Your task to perform on an android device: change the clock style Image 0: 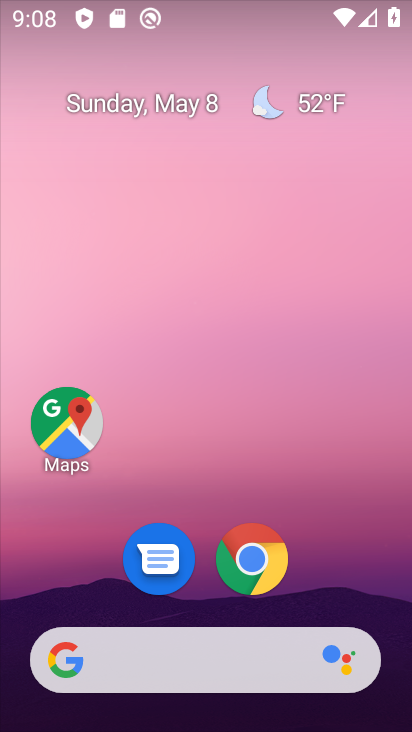
Step 0: drag from (329, 560) to (260, 48)
Your task to perform on an android device: change the clock style Image 1: 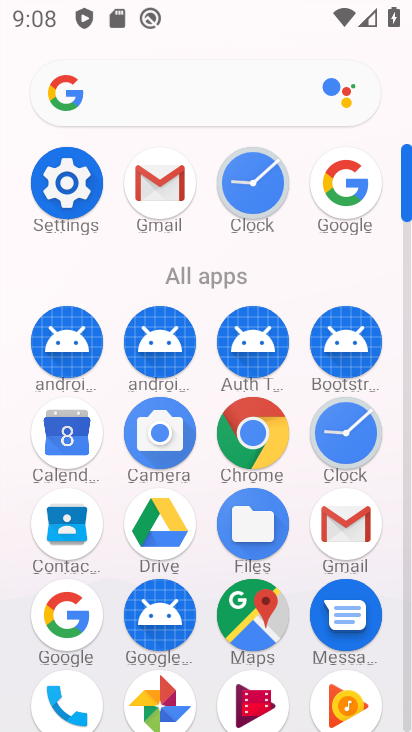
Step 1: click (358, 418)
Your task to perform on an android device: change the clock style Image 2: 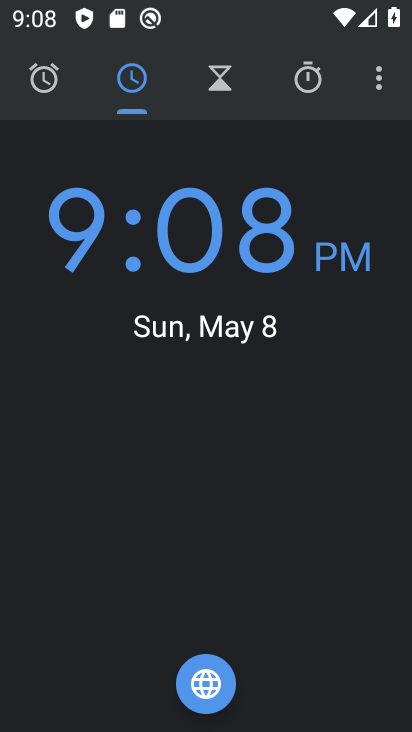
Step 2: click (379, 77)
Your task to perform on an android device: change the clock style Image 3: 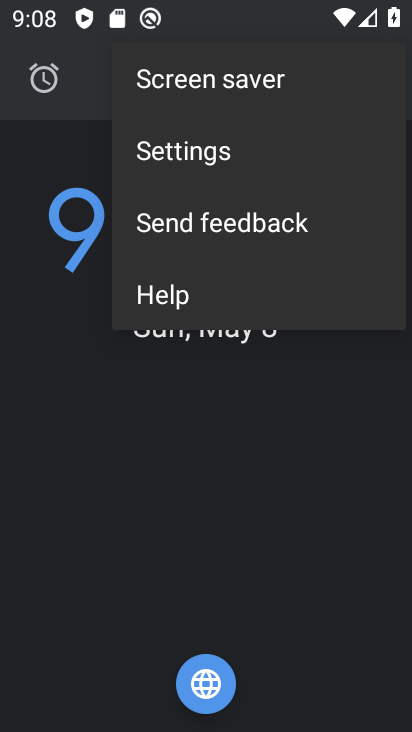
Step 3: click (180, 164)
Your task to perform on an android device: change the clock style Image 4: 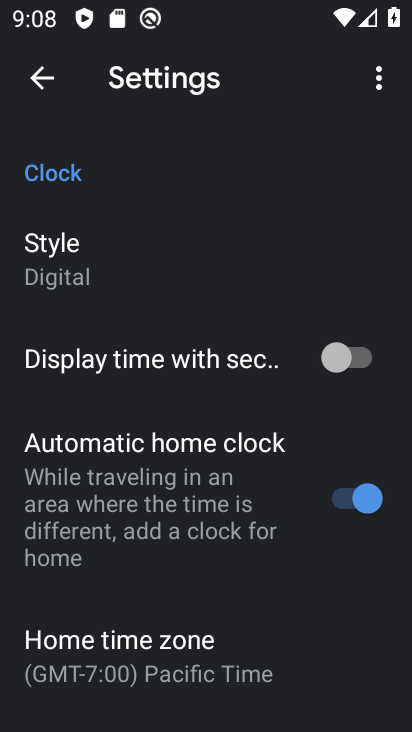
Step 4: click (137, 261)
Your task to perform on an android device: change the clock style Image 5: 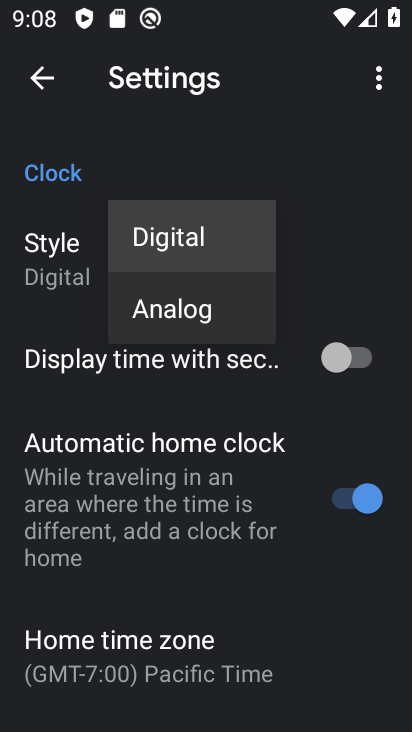
Step 5: click (184, 320)
Your task to perform on an android device: change the clock style Image 6: 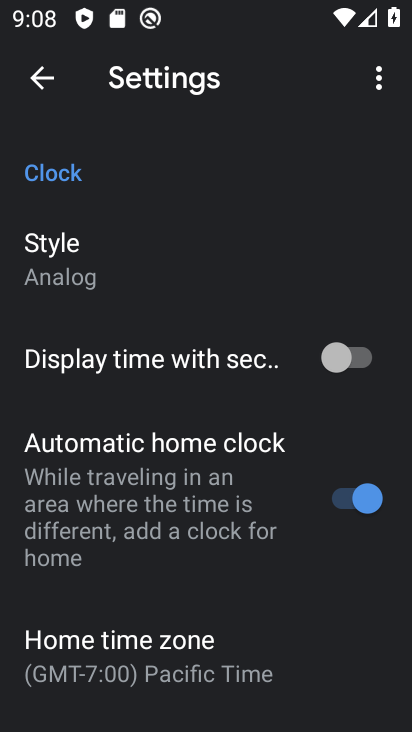
Step 6: task complete